Your task to perform on an android device: change notification settings in the gmail app Image 0: 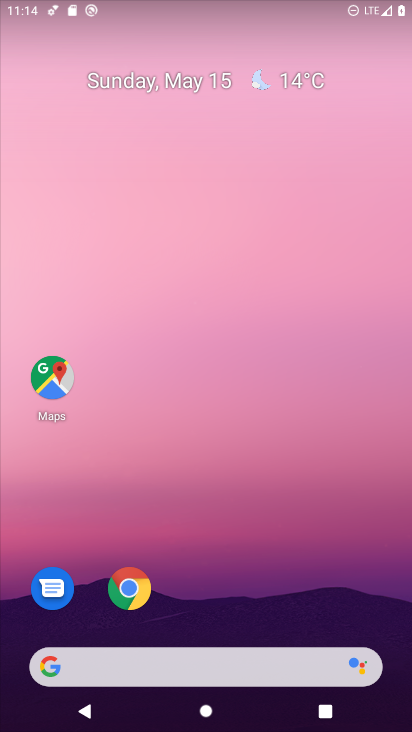
Step 0: drag from (186, 598) to (230, 173)
Your task to perform on an android device: change notification settings in the gmail app Image 1: 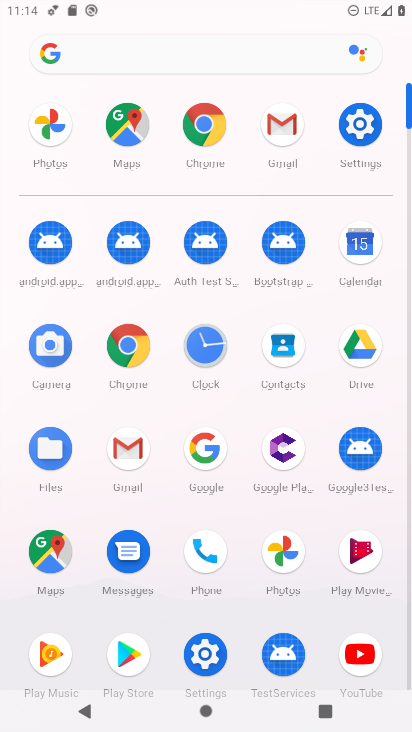
Step 1: click (132, 465)
Your task to perform on an android device: change notification settings in the gmail app Image 2: 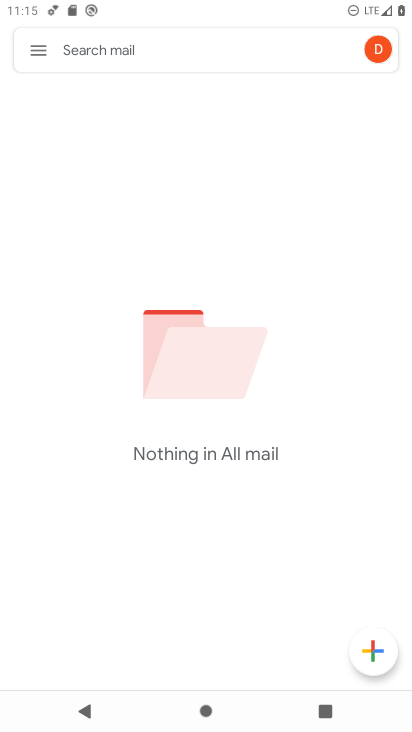
Step 2: click (31, 47)
Your task to perform on an android device: change notification settings in the gmail app Image 3: 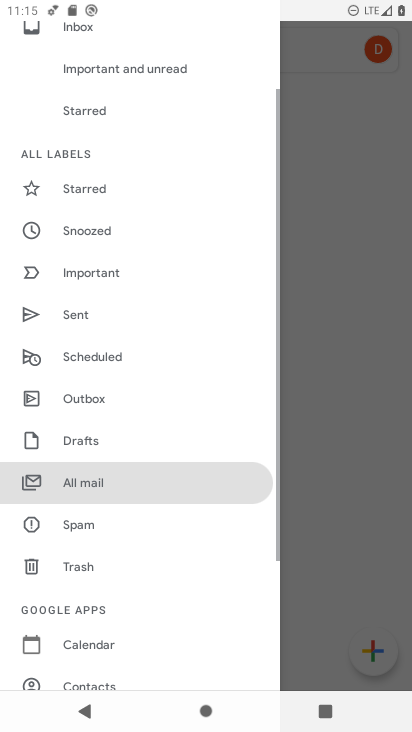
Step 3: drag from (83, 611) to (152, 314)
Your task to perform on an android device: change notification settings in the gmail app Image 4: 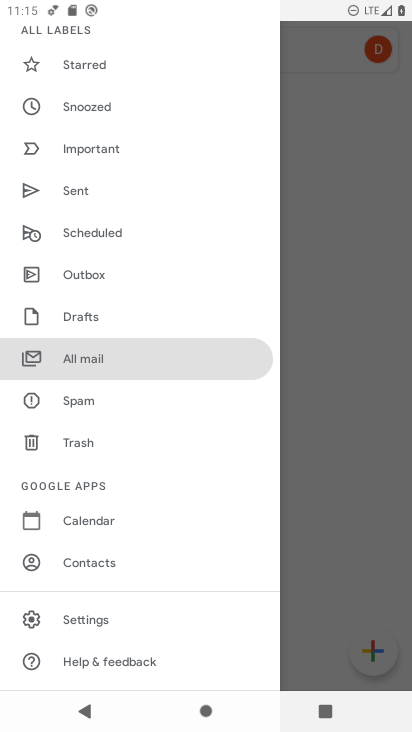
Step 4: click (83, 625)
Your task to perform on an android device: change notification settings in the gmail app Image 5: 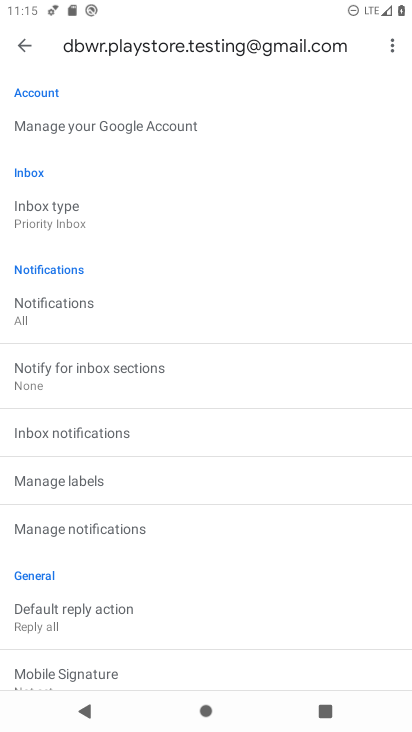
Step 5: click (28, 41)
Your task to perform on an android device: change notification settings in the gmail app Image 6: 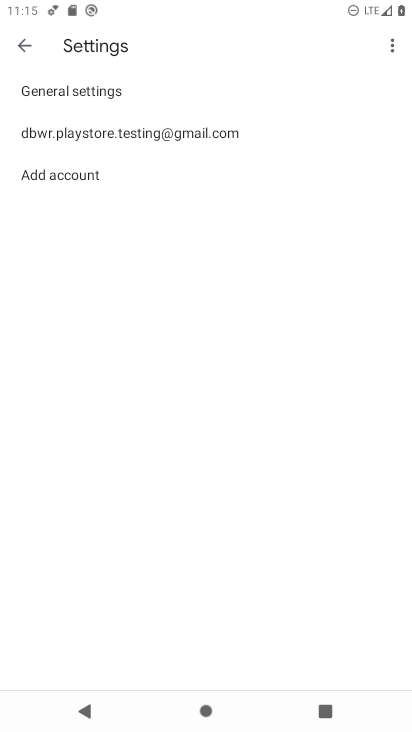
Step 6: click (108, 82)
Your task to perform on an android device: change notification settings in the gmail app Image 7: 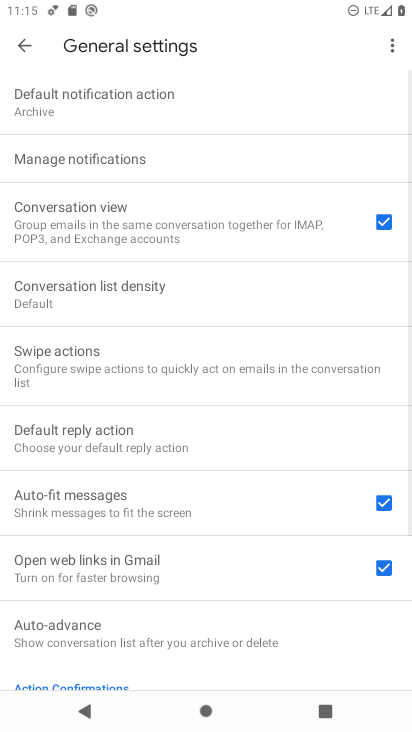
Step 7: click (133, 163)
Your task to perform on an android device: change notification settings in the gmail app Image 8: 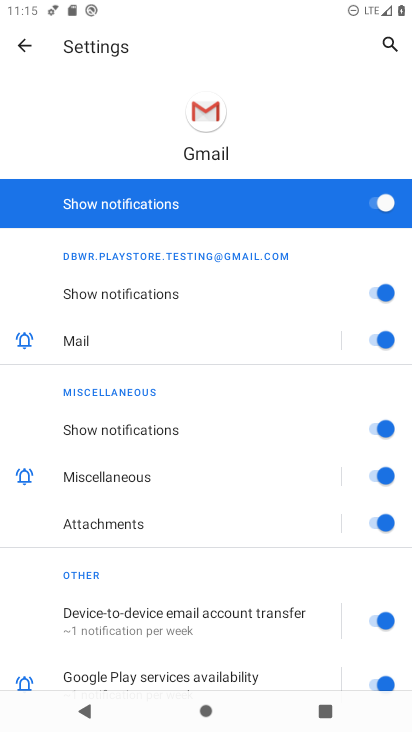
Step 8: click (362, 193)
Your task to perform on an android device: change notification settings in the gmail app Image 9: 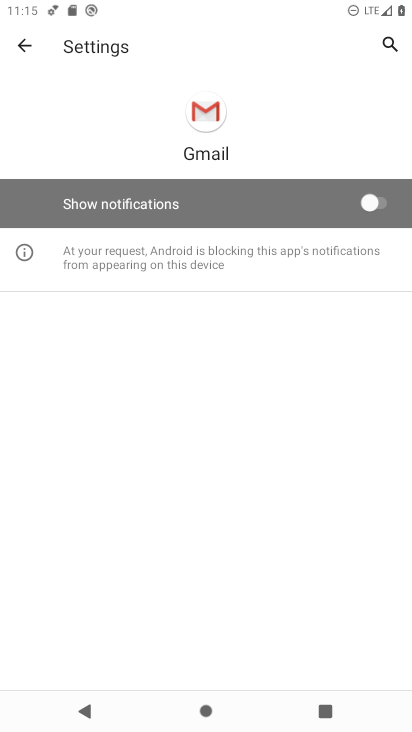
Step 9: task complete